Your task to perform on an android device: Go to internet settings Image 0: 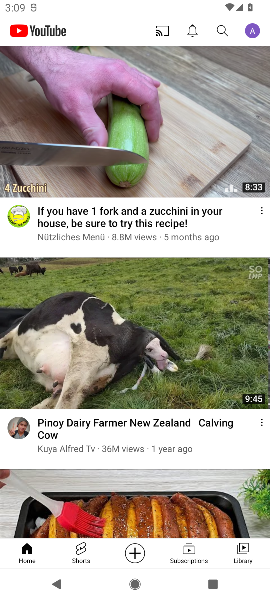
Step 0: press home button
Your task to perform on an android device: Go to internet settings Image 1: 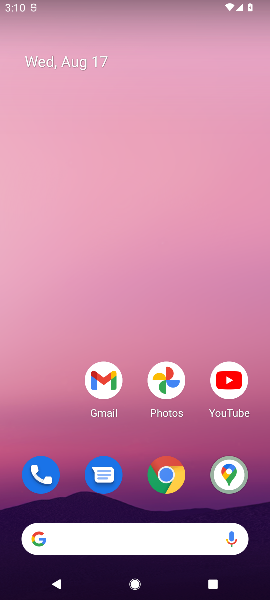
Step 1: drag from (132, 502) to (85, 2)
Your task to perform on an android device: Go to internet settings Image 2: 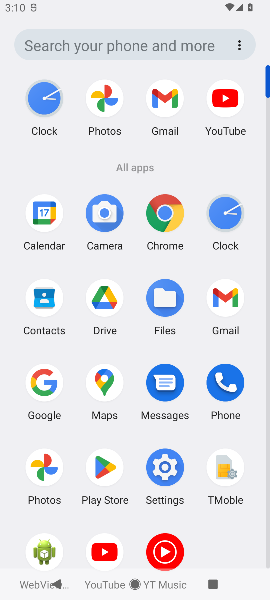
Step 2: click (174, 463)
Your task to perform on an android device: Go to internet settings Image 3: 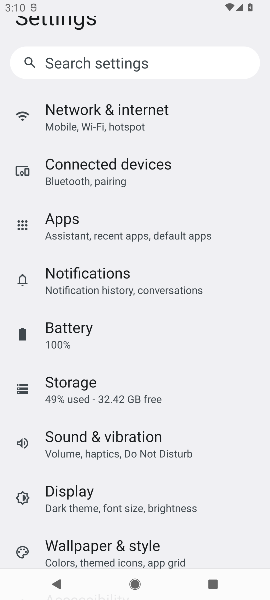
Step 3: click (95, 125)
Your task to perform on an android device: Go to internet settings Image 4: 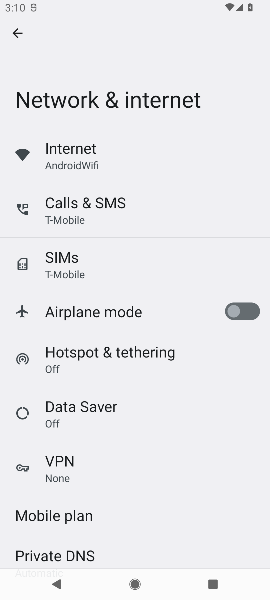
Step 4: click (85, 151)
Your task to perform on an android device: Go to internet settings Image 5: 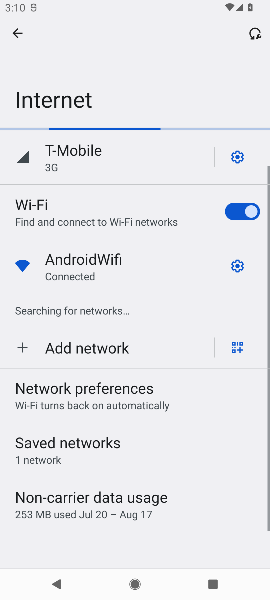
Step 5: task complete